Your task to perform on an android device: Open location settings Image 0: 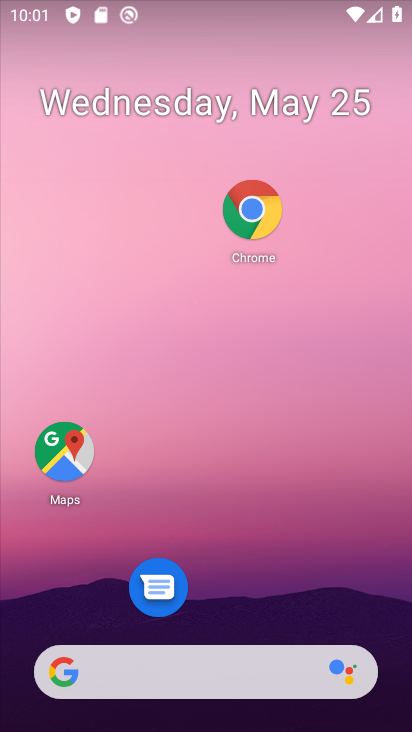
Step 0: drag from (233, 598) to (272, 167)
Your task to perform on an android device: Open location settings Image 1: 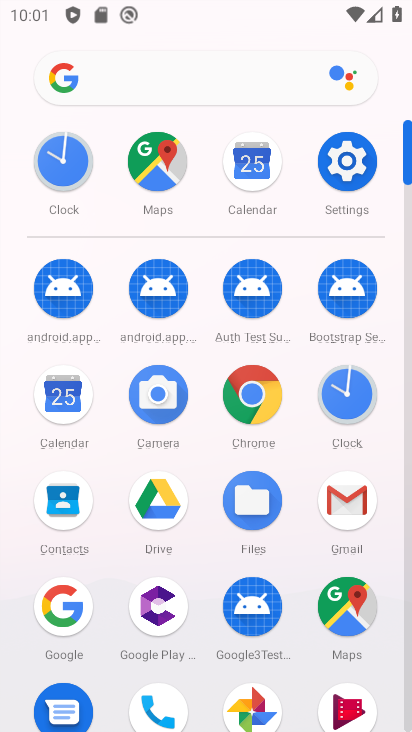
Step 1: click (355, 183)
Your task to perform on an android device: Open location settings Image 2: 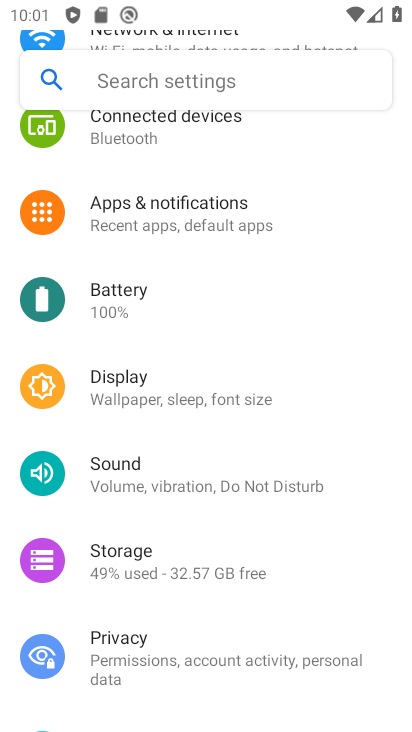
Step 2: drag from (182, 667) to (207, 302)
Your task to perform on an android device: Open location settings Image 3: 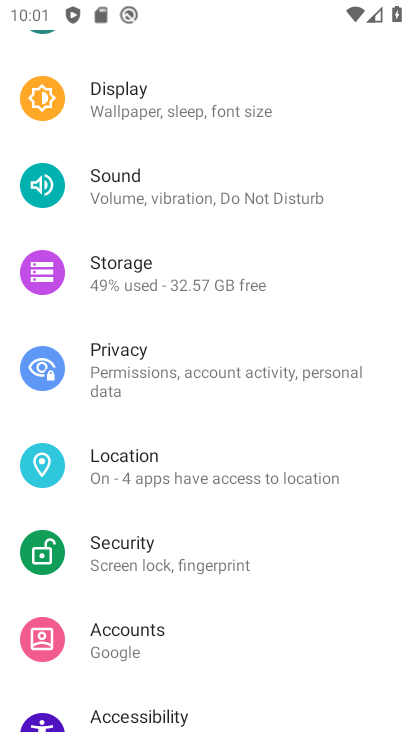
Step 3: click (197, 474)
Your task to perform on an android device: Open location settings Image 4: 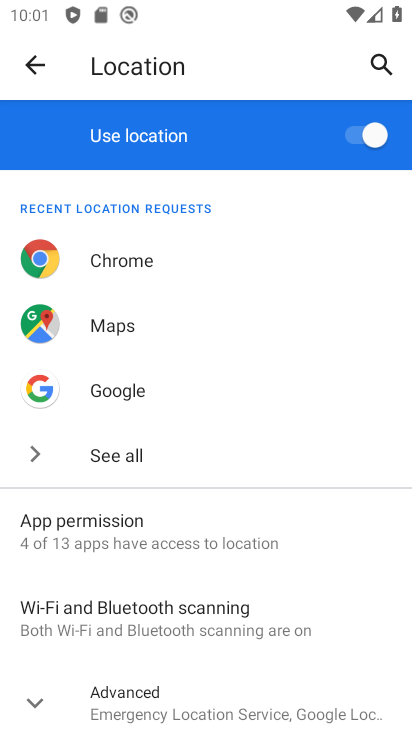
Step 4: task complete